Your task to perform on an android device: Check the news Image 0: 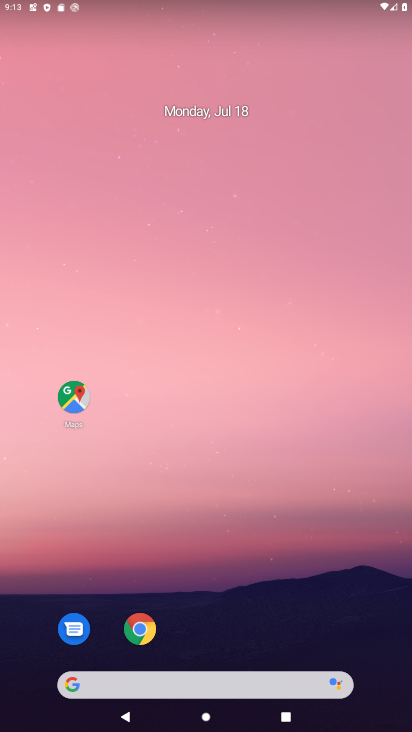
Step 0: drag from (339, 611) to (264, 168)
Your task to perform on an android device: Check the news Image 1: 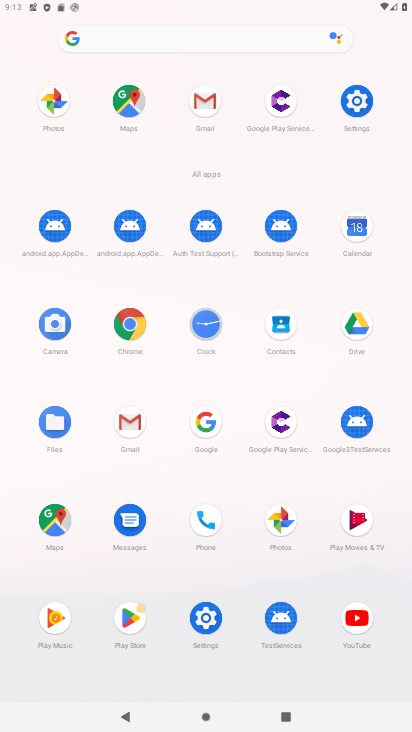
Step 1: click (126, 318)
Your task to perform on an android device: Check the news Image 2: 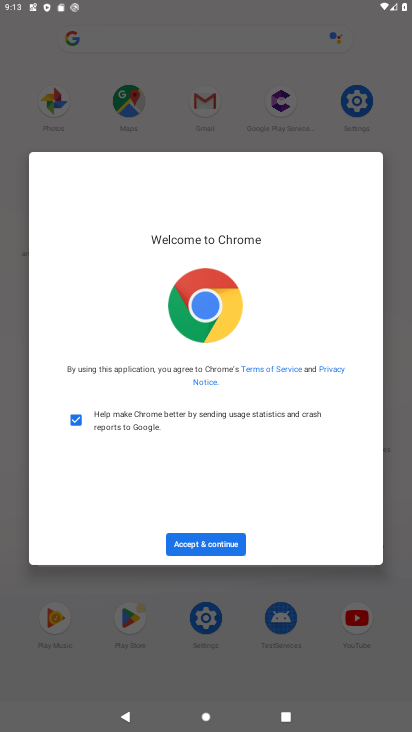
Step 2: click (200, 551)
Your task to perform on an android device: Check the news Image 3: 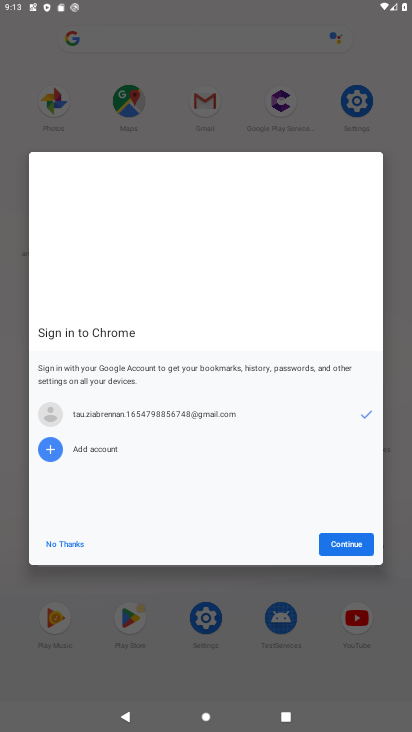
Step 3: click (330, 542)
Your task to perform on an android device: Check the news Image 4: 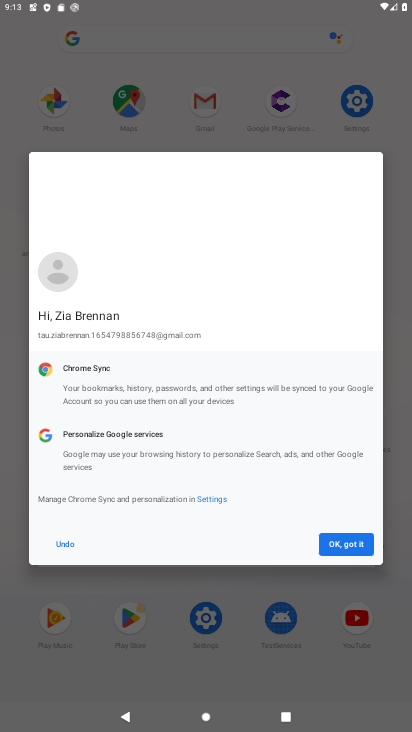
Step 4: click (330, 542)
Your task to perform on an android device: Check the news Image 5: 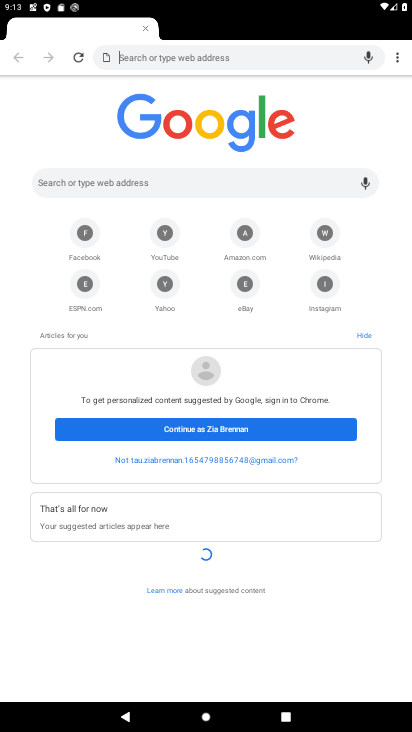
Step 5: click (187, 59)
Your task to perform on an android device: Check the news Image 6: 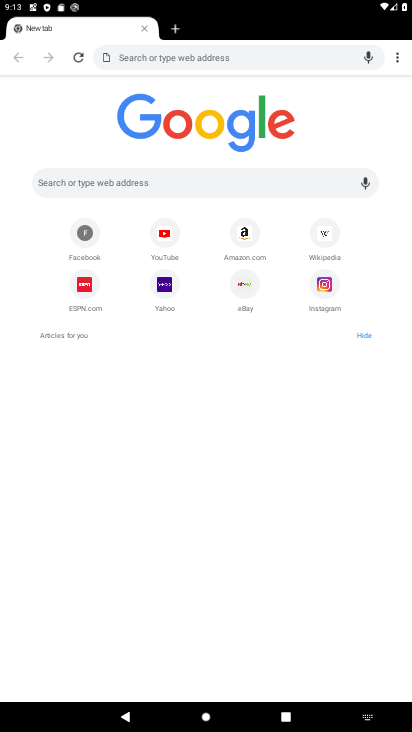
Step 6: type "news"
Your task to perform on an android device: Check the news Image 7: 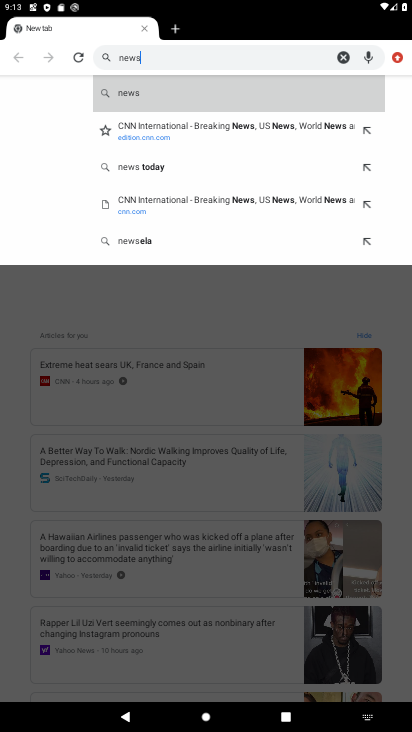
Step 7: click (136, 98)
Your task to perform on an android device: Check the news Image 8: 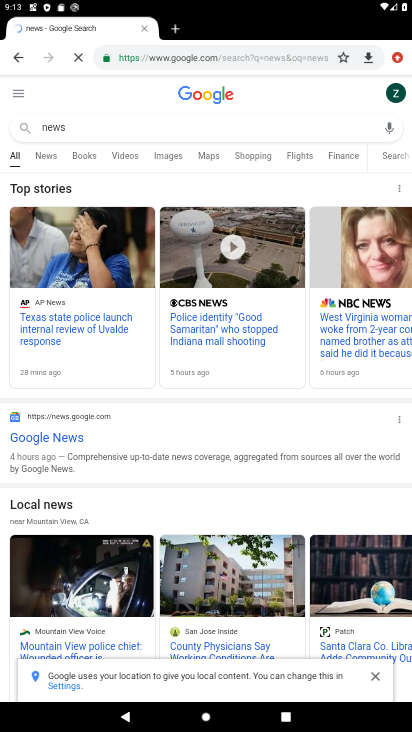
Step 8: click (64, 433)
Your task to perform on an android device: Check the news Image 9: 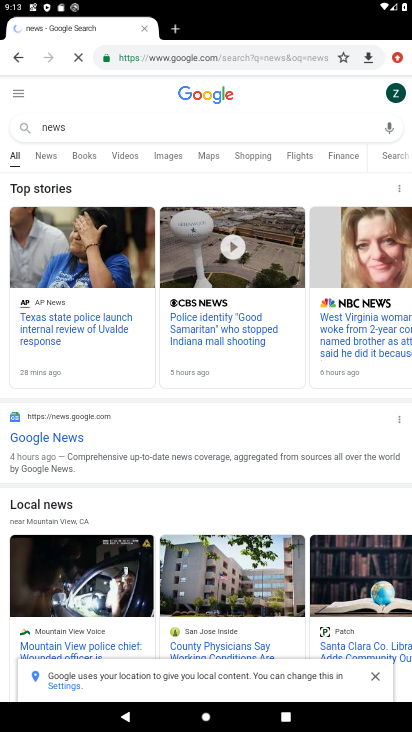
Step 9: click (71, 436)
Your task to perform on an android device: Check the news Image 10: 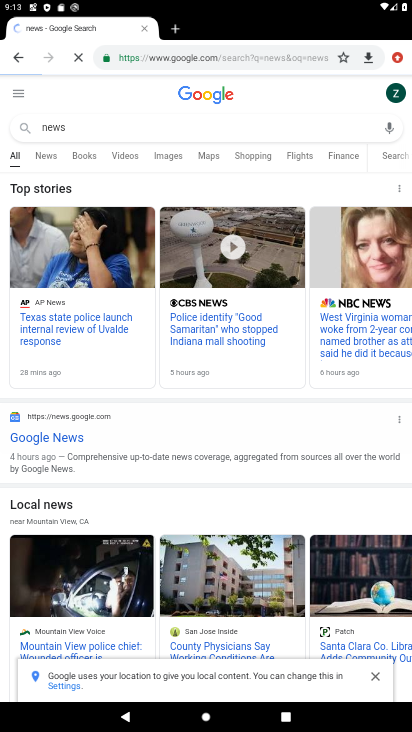
Step 10: click (71, 442)
Your task to perform on an android device: Check the news Image 11: 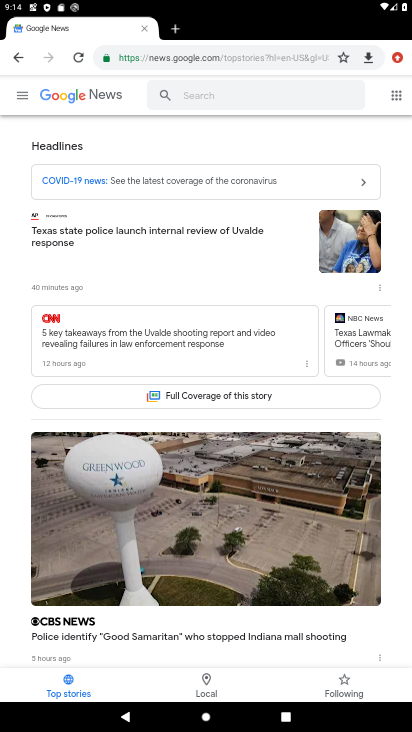
Step 11: task complete